Your task to perform on an android device: turn on notifications settings in the gmail app Image 0: 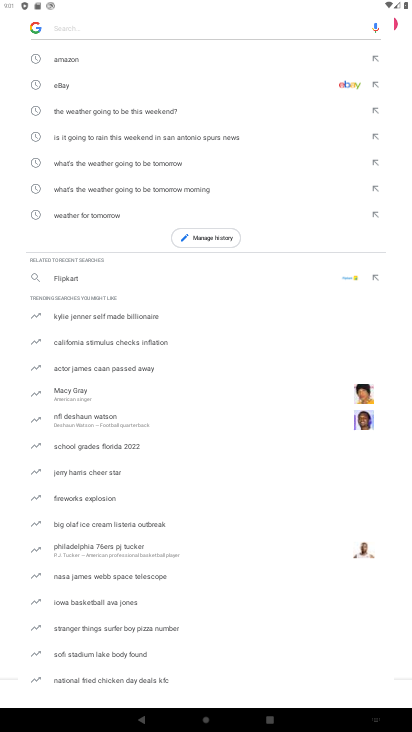
Step 0: press home button
Your task to perform on an android device: turn on notifications settings in the gmail app Image 1: 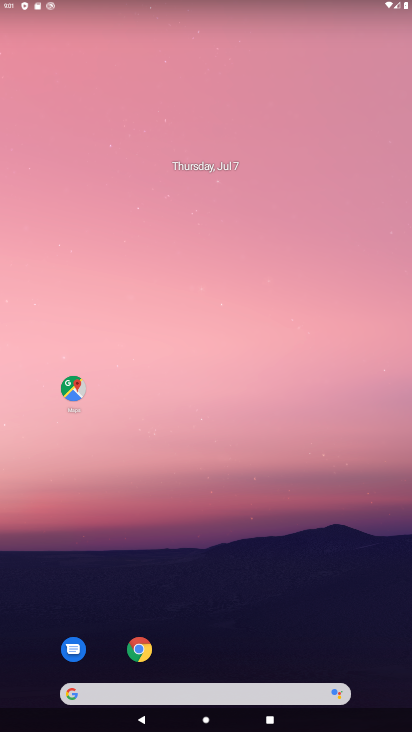
Step 1: drag from (239, 602) to (240, 419)
Your task to perform on an android device: turn on notifications settings in the gmail app Image 2: 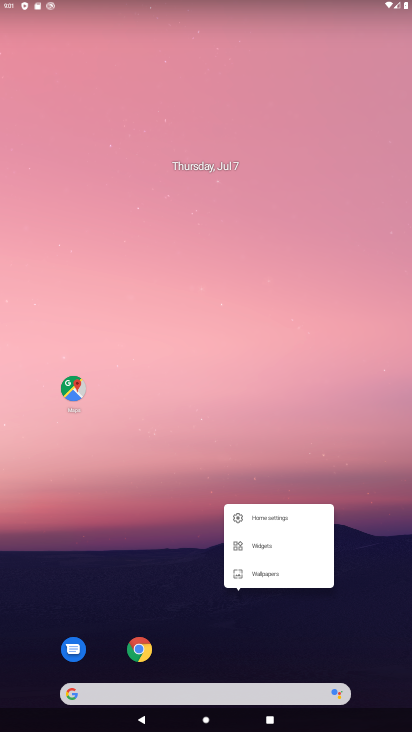
Step 2: click (173, 484)
Your task to perform on an android device: turn on notifications settings in the gmail app Image 3: 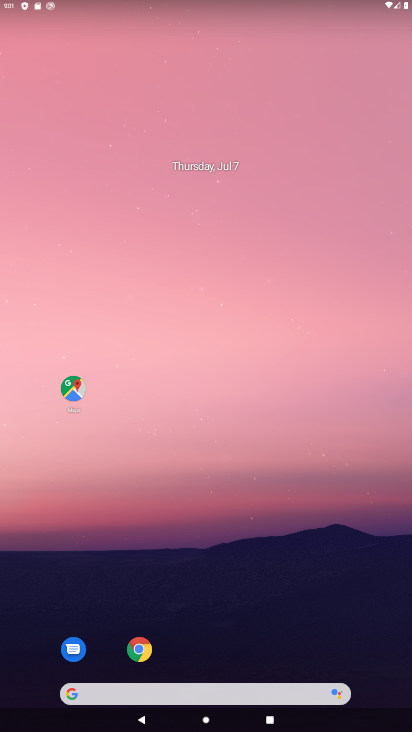
Step 3: drag from (175, 614) to (185, 91)
Your task to perform on an android device: turn on notifications settings in the gmail app Image 4: 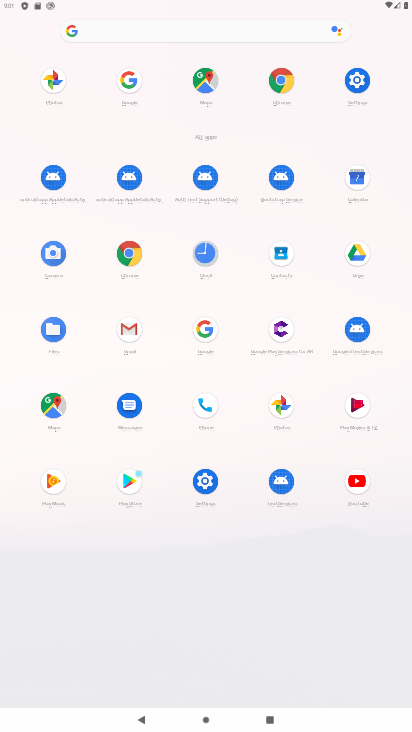
Step 4: click (132, 338)
Your task to perform on an android device: turn on notifications settings in the gmail app Image 5: 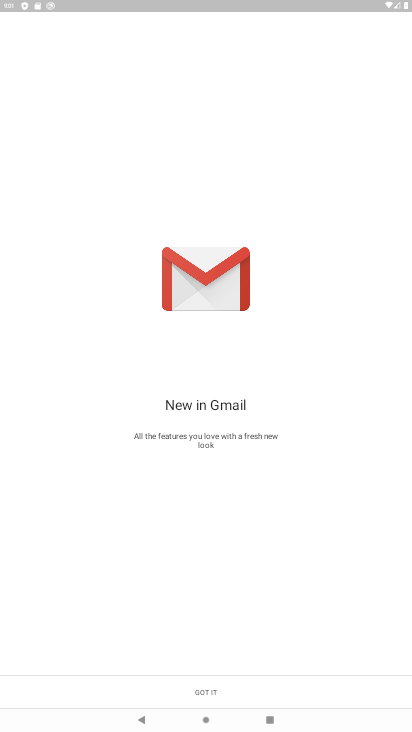
Step 5: click (205, 698)
Your task to perform on an android device: turn on notifications settings in the gmail app Image 6: 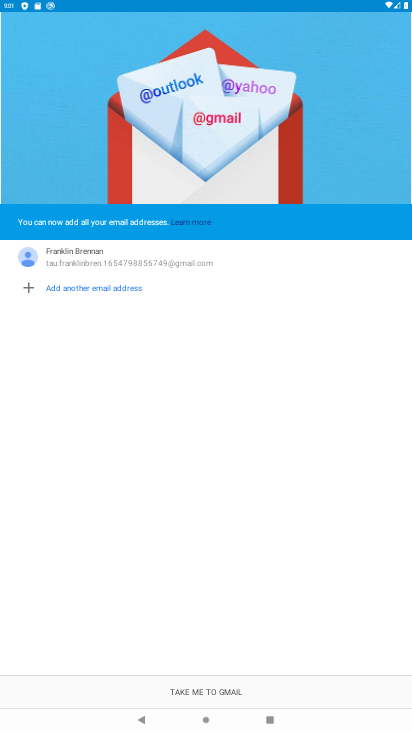
Step 6: click (203, 691)
Your task to perform on an android device: turn on notifications settings in the gmail app Image 7: 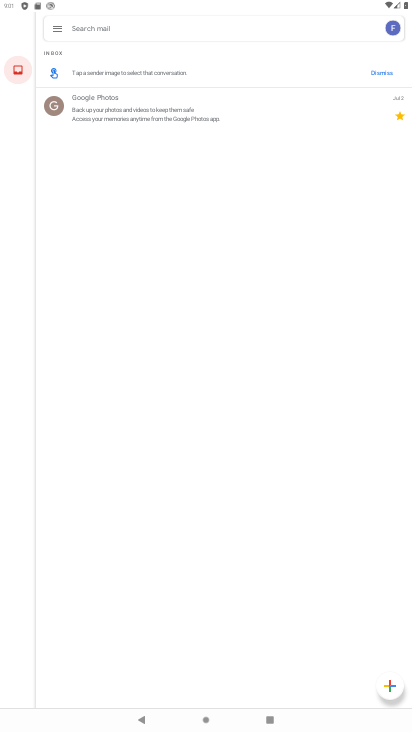
Step 7: click (56, 29)
Your task to perform on an android device: turn on notifications settings in the gmail app Image 8: 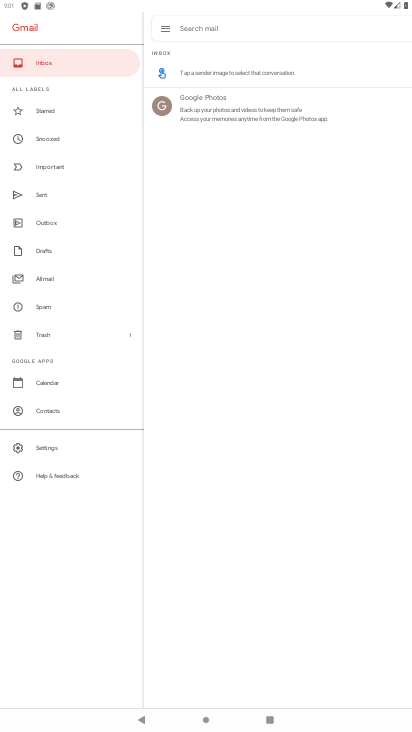
Step 8: click (39, 446)
Your task to perform on an android device: turn on notifications settings in the gmail app Image 9: 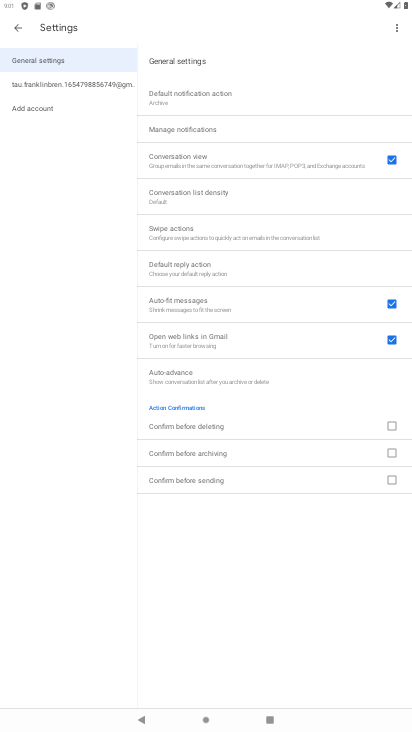
Step 9: click (187, 126)
Your task to perform on an android device: turn on notifications settings in the gmail app Image 10: 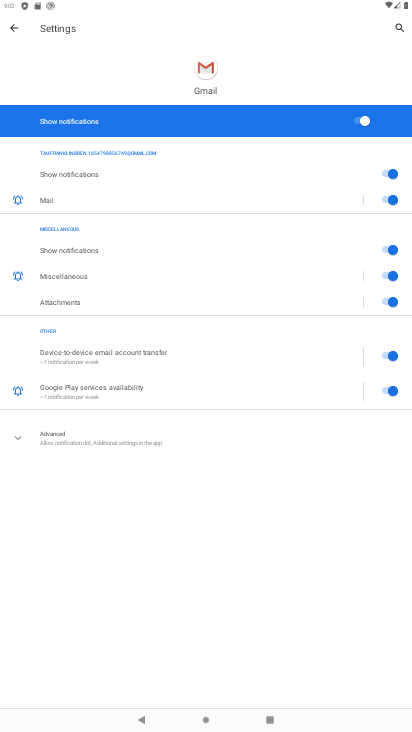
Step 10: task complete